Your task to perform on an android device: View the shopping cart on bestbuy.com. Search for lg ultragear on bestbuy.com, select the first entry, add it to the cart, then select checkout. Image 0: 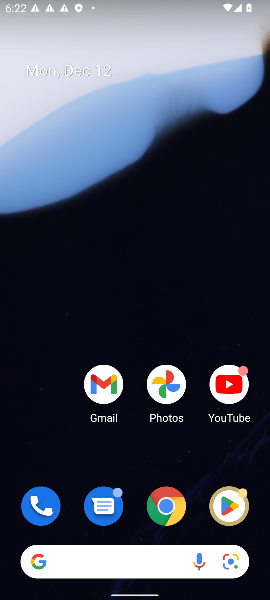
Step 0: click (149, 559)
Your task to perform on an android device: View the shopping cart on bestbuy.com. Search for lg ultragear on bestbuy.com, select the first entry, add it to the cart, then select checkout. Image 1: 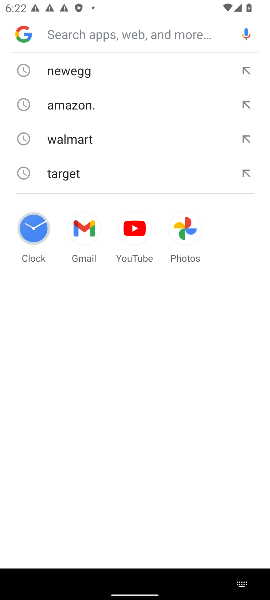
Step 1: type "bestbuy"
Your task to perform on an android device: View the shopping cart on bestbuy.com. Search for lg ultragear on bestbuy.com, select the first entry, add it to the cart, then select checkout. Image 2: 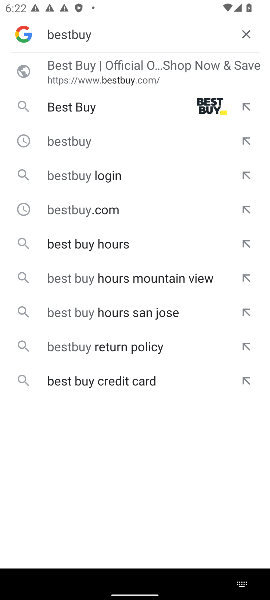
Step 2: click (97, 105)
Your task to perform on an android device: View the shopping cart on bestbuy.com. Search for lg ultragear on bestbuy.com, select the first entry, add it to the cart, then select checkout. Image 3: 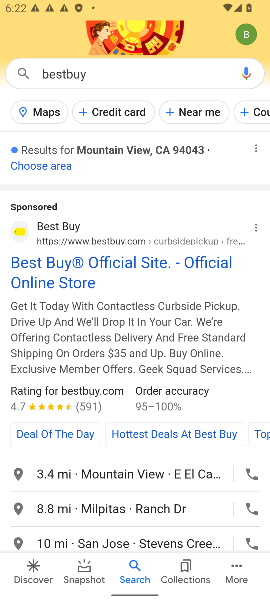
Step 3: click (54, 281)
Your task to perform on an android device: View the shopping cart on bestbuy.com. Search for lg ultragear on bestbuy.com, select the first entry, add it to the cart, then select checkout. Image 4: 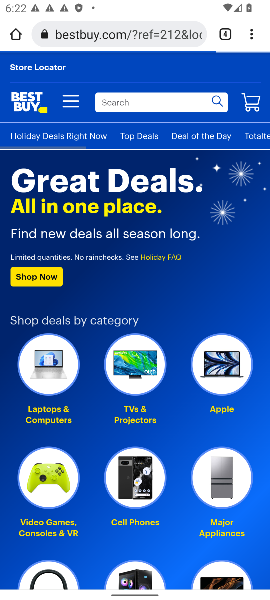
Step 4: click (143, 105)
Your task to perform on an android device: View the shopping cart on bestbuy.com. Search for lg ultragear on bestbuy.com, select the first entry, add it to the cart, then select checkout. Image 5: 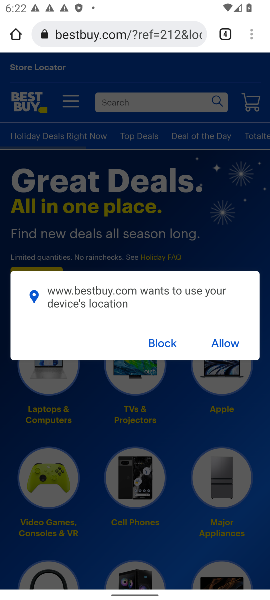
Step 5: click (226, 349)
Your task to perform on an android device: View the shopping cart on bestbuy.com. Search for lg ultragear on bestbuy.com, select the first entry, add it to the cart, then select checkout. Image 6: 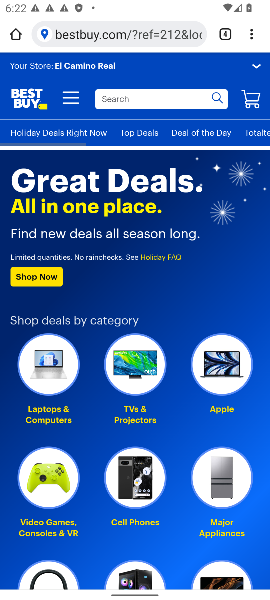
Step 6: click (156, 94)
Your task to perform on an android device: View the shopping cart on bestbuy.com. Search for lg ultragear on bestbuy.com, select the first entry, add it to the cart, then select checkout. Image 7: 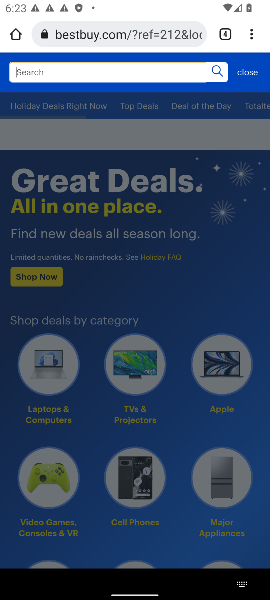
Step 7: type "lg ultragear"
Your task to perform on an android device: View the shopping cart on bestbuy.com. Search for lg ultragear on bestbuy.com, select the first entry, add it to the cart, then select checkout. Image 8: 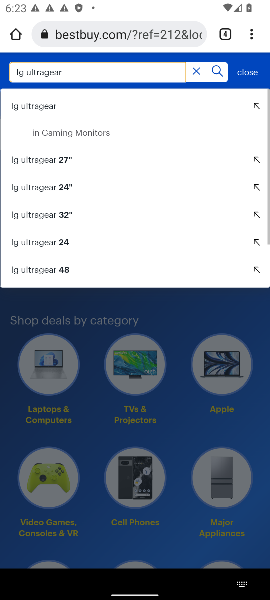
Step 8: click (38, 106)
Your task to perform on an android device: View the shopping cart on bestbuy.com. Search for lg ultragear on bestbuy.com, select the first entry, add it to the cart, then select checkout. Image 9: 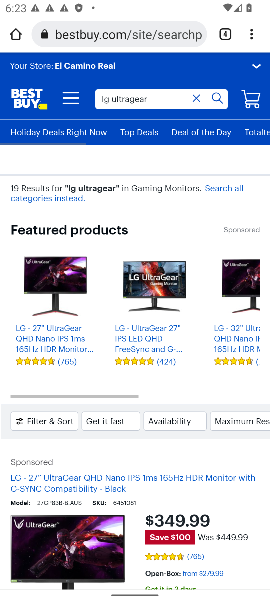
Step 9: drag from (197, 547) to (184, 258)
Your task to perform on an android device: View the shopping cart on bestbuy.com. Search for lg ultragear on bestbuy.com, select the first entry, add it to the cart, then select checkout. Image 10: 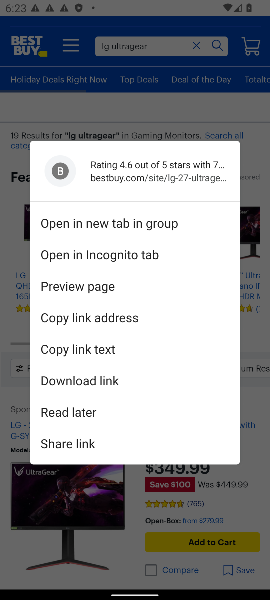
Step 10: click (65, 553)
Your task to perform on an android device: View the shopping cart on bestbuy.com. Search for lg ultragear on bestbuy.com, select the first entry, add it to the cart, then select checkout. Image 11: 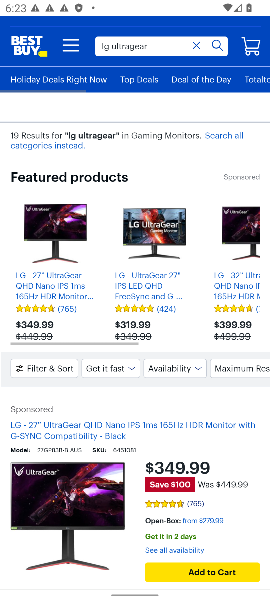
Step 11: click (174, 571)
Your task to perform on an android device: View the shopping cart on bestbuy.com. Search for lg ultragear on bestbuy.com, select the first entry, add it to the cart, then select checkout. Image 12: 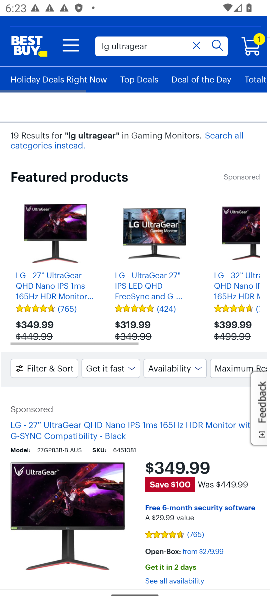
Step 12: task complete